Your task to perform on an android device: turn off airplane mode Image 0: 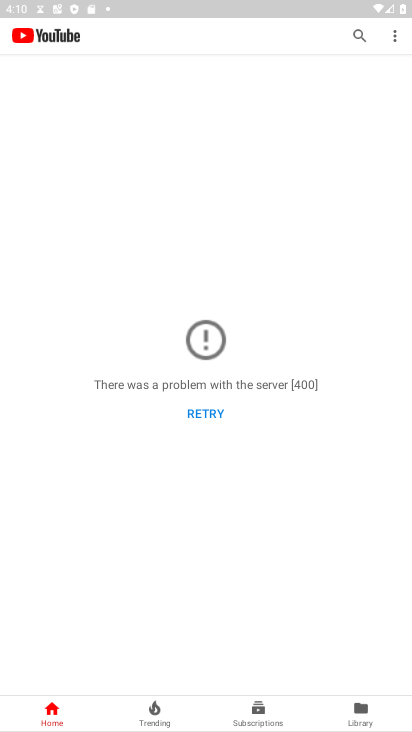
Step 0: press home button
Your task to perform on an android device: turn off airplane mode Image 1: 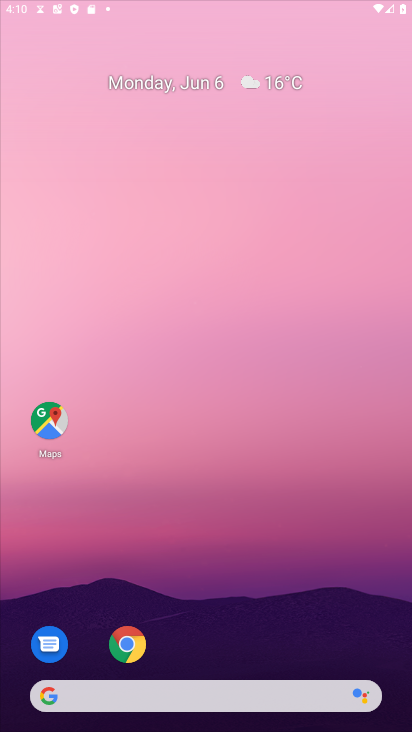
Step 1: task complete